Your task to perform on an android device: allow cookies in the chrome app Image 0: 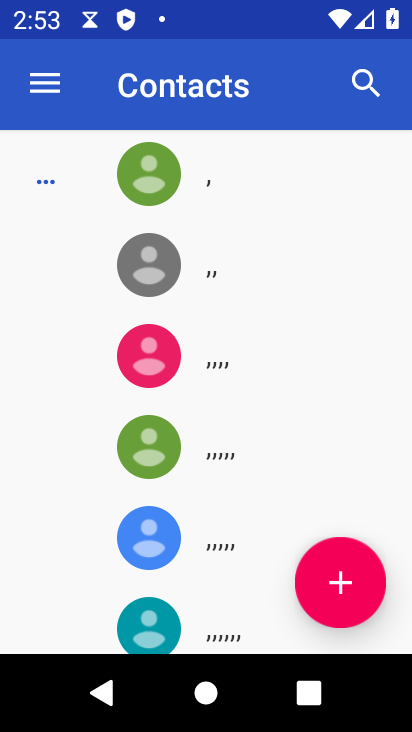
Step 0: press back button
Your task to perform on an android device: allow cookies in the chrome app Image 1: 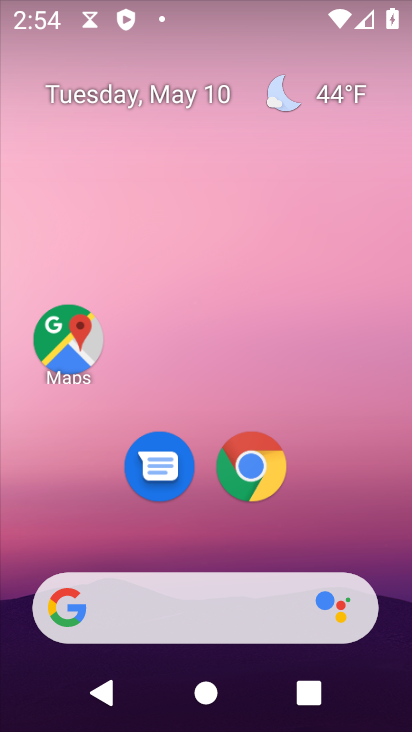
Step 1: click (251, 470)
Your task to perform on an android device: allow cookies in the chrome app Image 2: 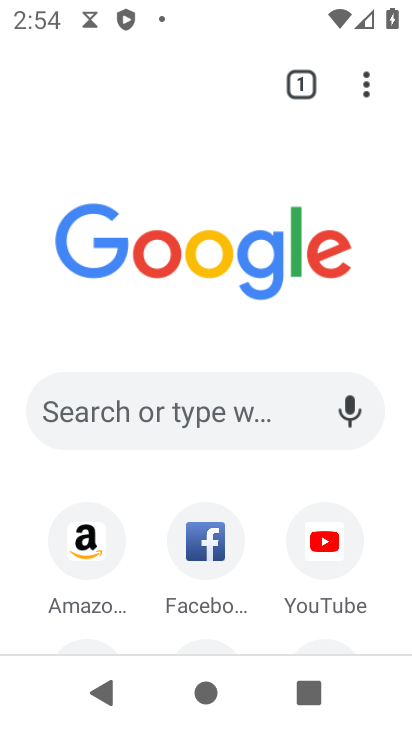
Step 2: click (367, 80)
Your task to perform on an android device: allow cookies in the chrome app Image 3: 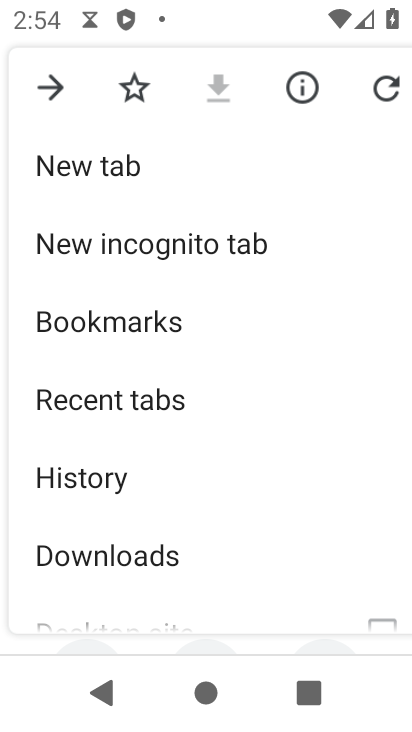
Step 3: drag from (126, 513) to (172, 336)
Your task to perform on an android device: allow cookies in the chrome app Image 4: 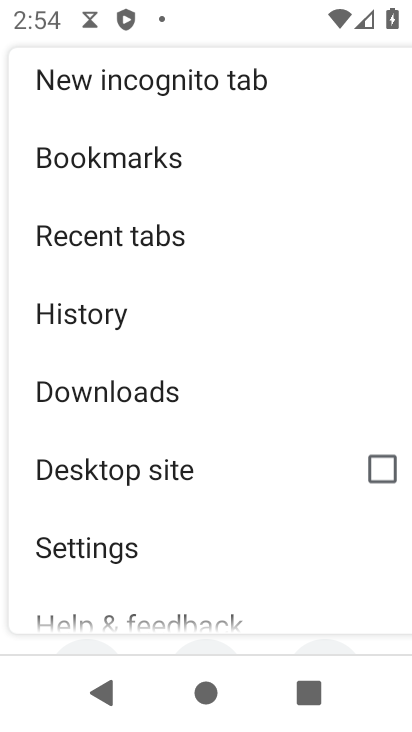
Step 4: drag from (117, 438) to (162, 309)
Your task to perform on an android device: allow cookies in the chrome app Image 5: 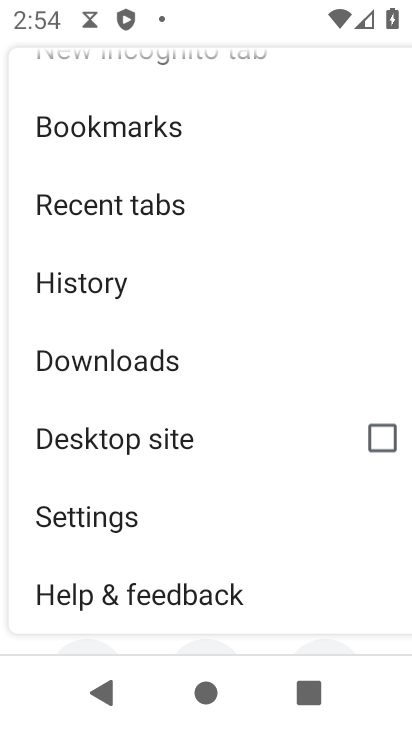
Step 5: click (62, 516)
Your task to perform on an android device: allow cookies in the chrome app Image 6: 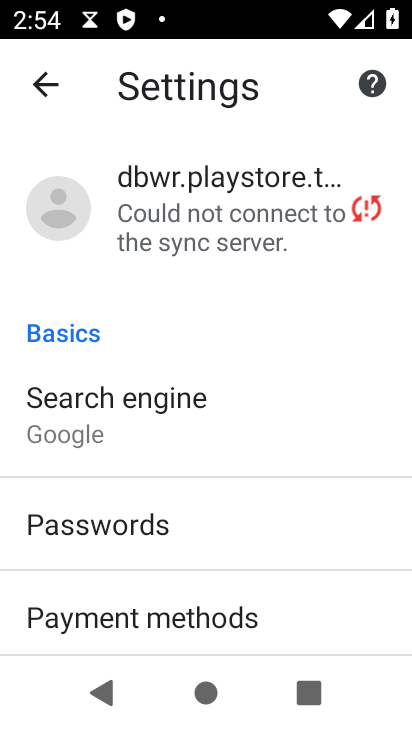
Step 6: drag from (154, 494) to (220, 363)
Your task to perform on an android device: allow cookies in the chrome app Image 7: 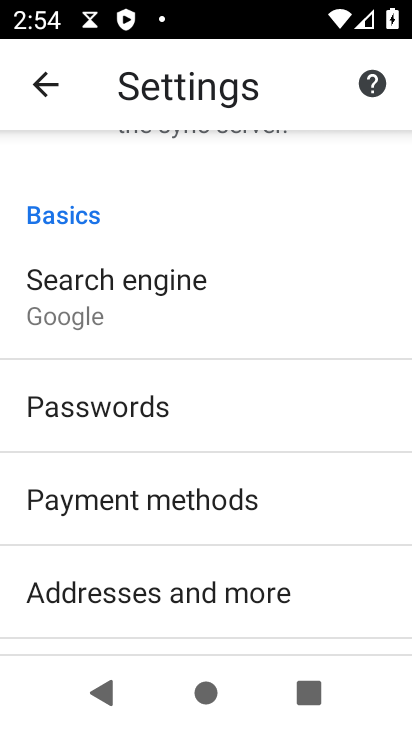
Step 7: drag from (139, 562) to (239, 399)
Your task to perform on an android device: allow cookies in the chrome app Image 8: 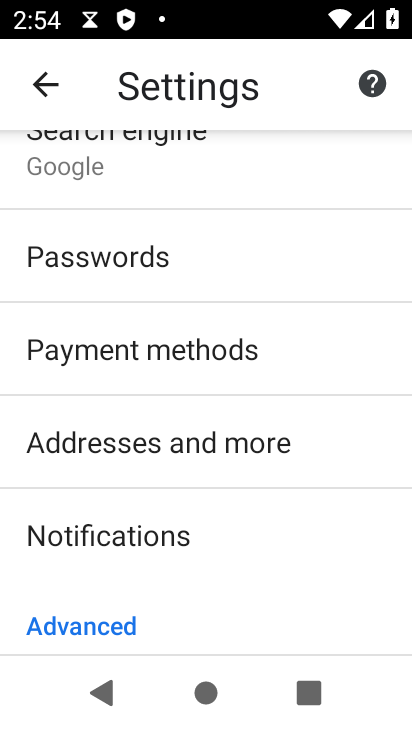
Step 8: drag from (142, 575) to (245, 417)
Your task to perform on an android device: allow cookies in the chrome app Image 9: 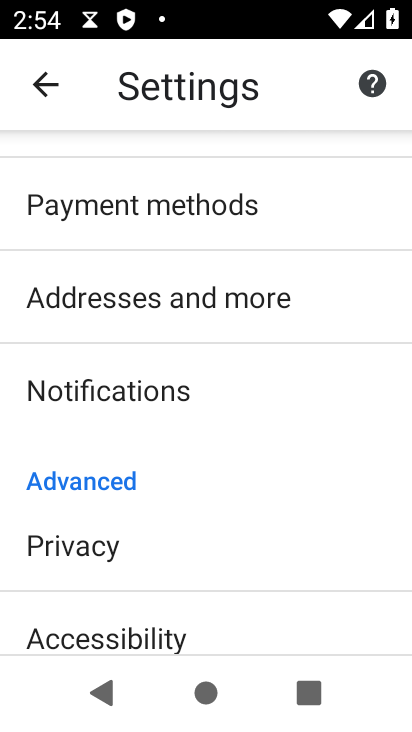
Step 9: drag from (164, 575) to (208, 434)
Your task to perform on an android device: allow cookies in the chrome app Image 10: 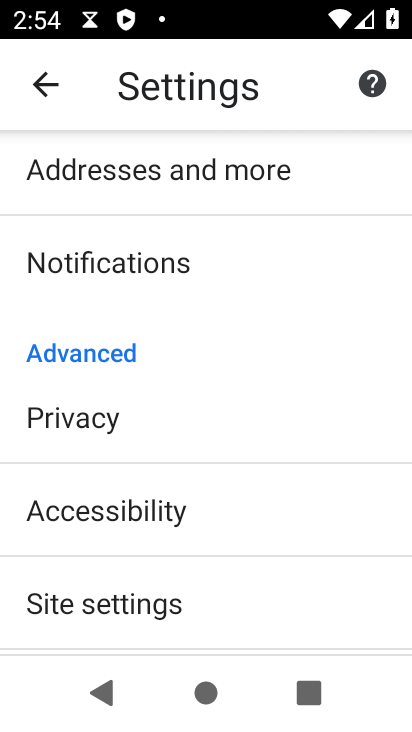
Step 10: click (133, 610)
Your task to perform on an android device: allow cookies in the chrome app Image 11: 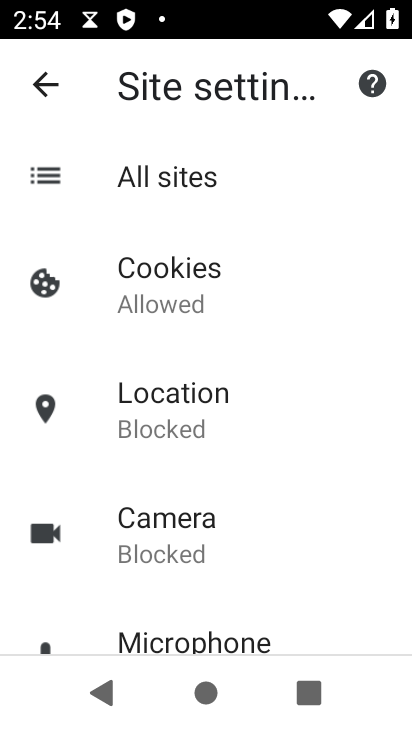
Step 11: click (166, 282)
Your task to perform on an android device: allow cookies in the chrome app Image 12: 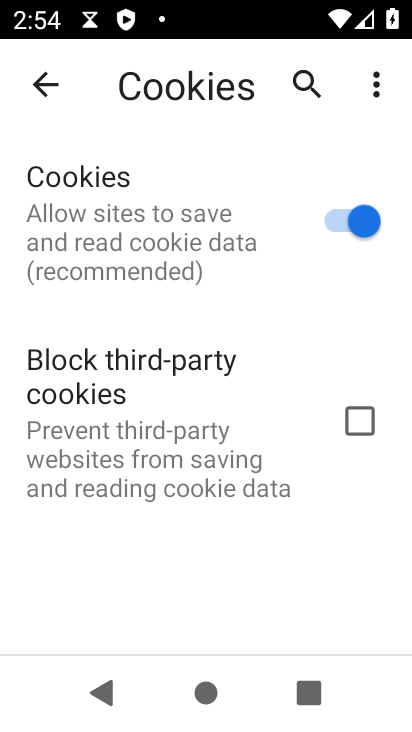
Step 12: click (364, 414)
Your task to perform on an android device: allow cookies in the chrome app Image 13: 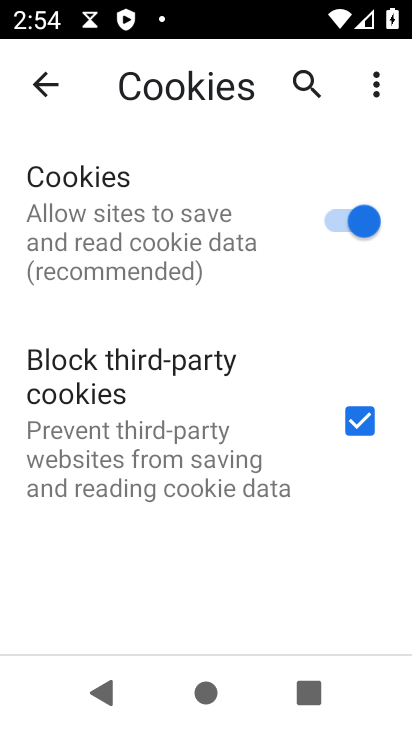
Step 13: task complete